Your task to perform on an android device: create a new album in the google photos Image 0: 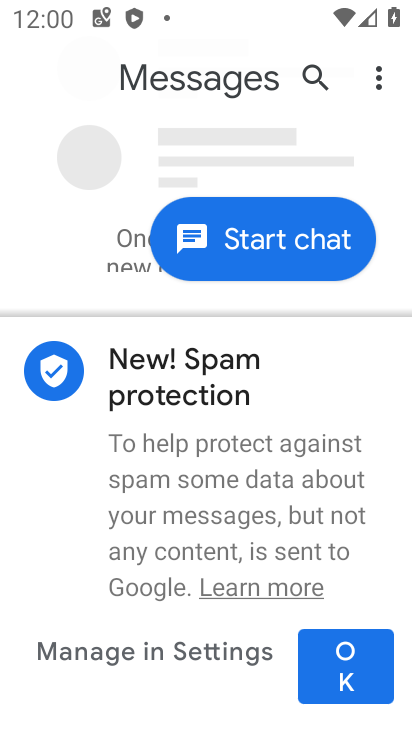
Step 0: press home button
Your task to perform on an android device: create a new album in the google photos Image 1: 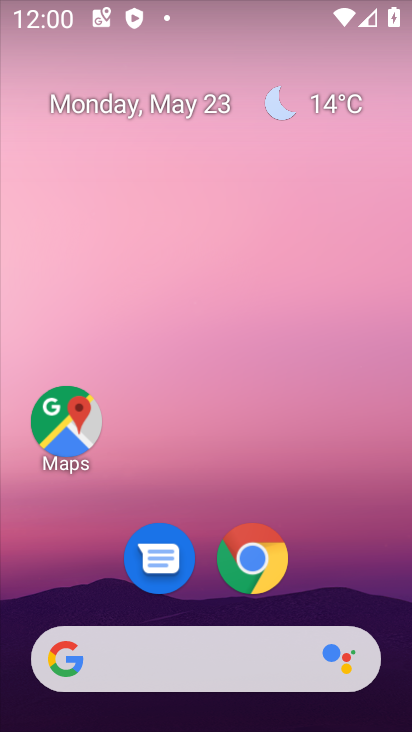
Step 1: drag from (363, 603) to (284, 3)
Your task to perform on an android device: create a new album in the google photos Image 2: 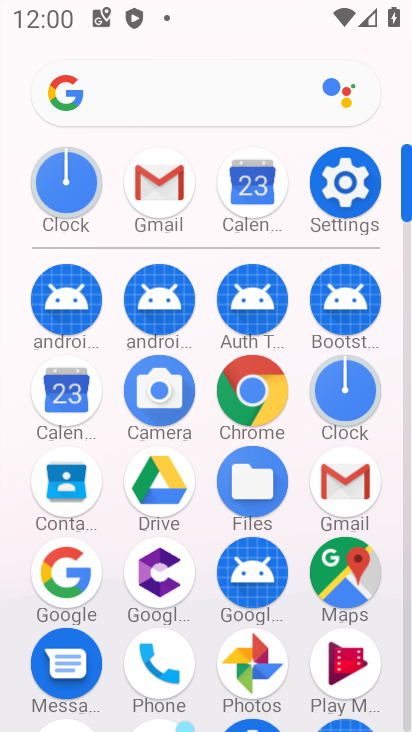
Step 2: click (261, 654)
Your task to perform on an android device: create a new album in the google photos Image 3: 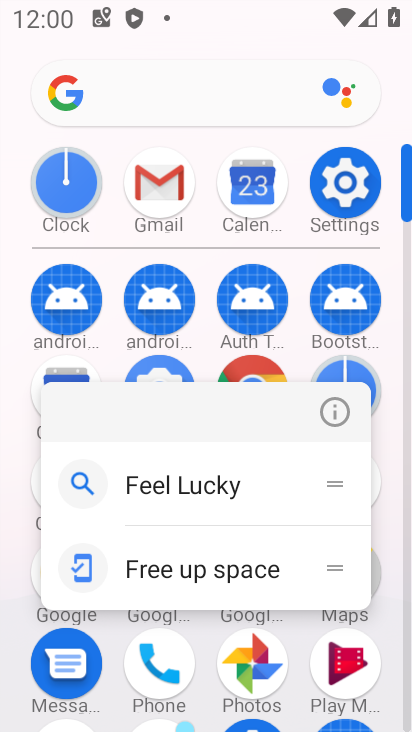
Step 3: click (253, 666)
Your task to perform on an android device: create a new album in the google photos Image 4: 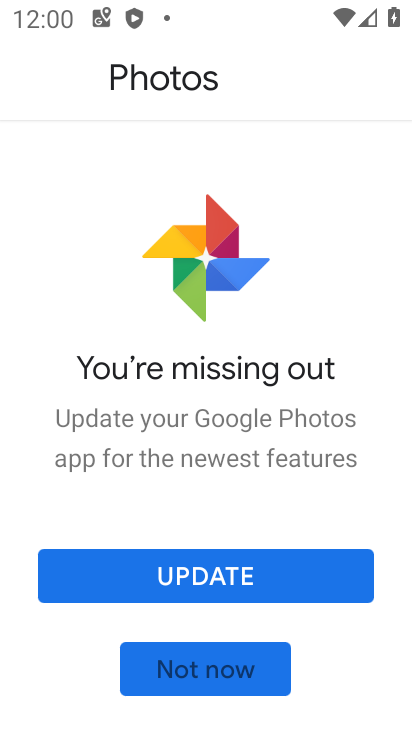
Step 4: click (203, 670)
Your task to perform on an android device: create a new album in the google photos Image 5: 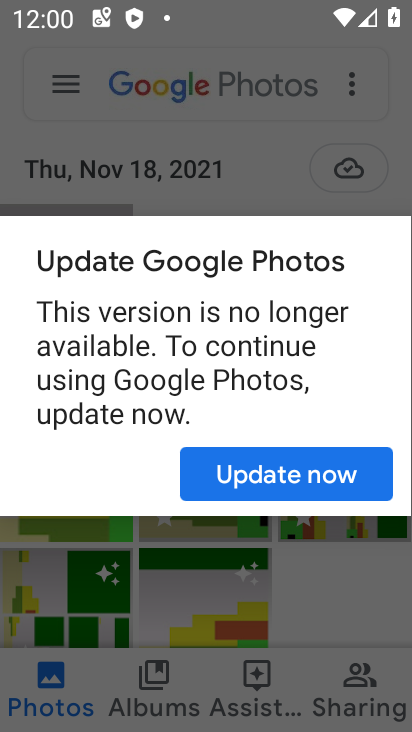
Step 5: click (269, 483)
Your task to perform on an android device: create a new album in the google photos Image 6: 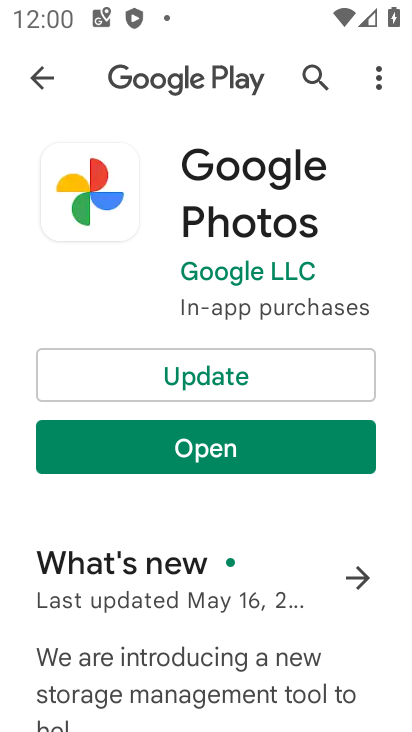
Step 6: click (212, 463)
Your task to perform on an android device: create a new album in the google photos Image 7: 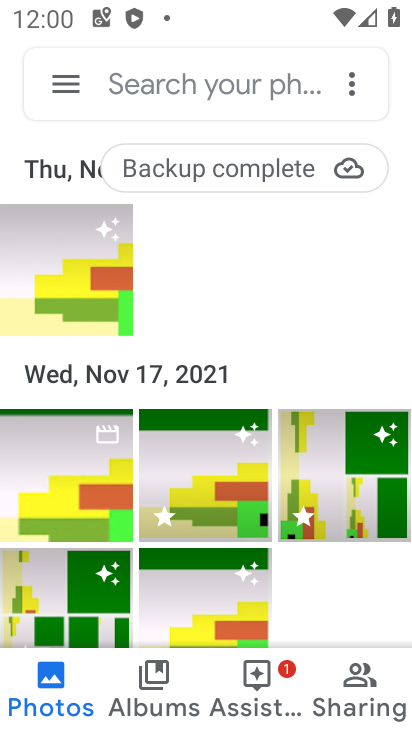
Step 7: click (195, 480)
Your task to perform on an android device: create a new album in the google photos Image 8: 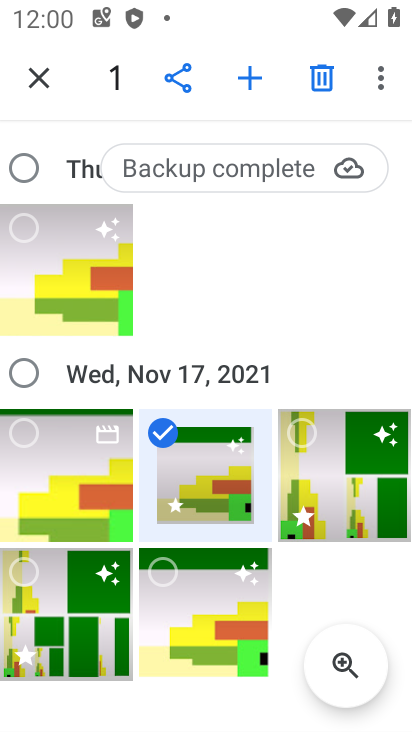
Step 8: click (317, 478)
Your task to perform on an android device: create a new album in the google photos Image 9: 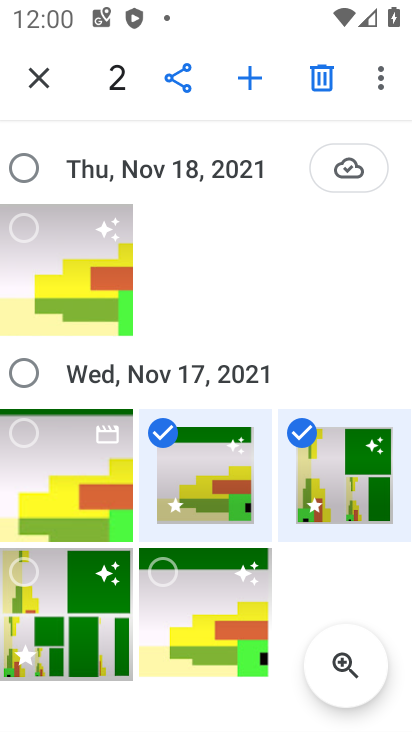
Step 9: click (248, 95)
Your task to perform on an android device: create a new album in the google photos Image 10: 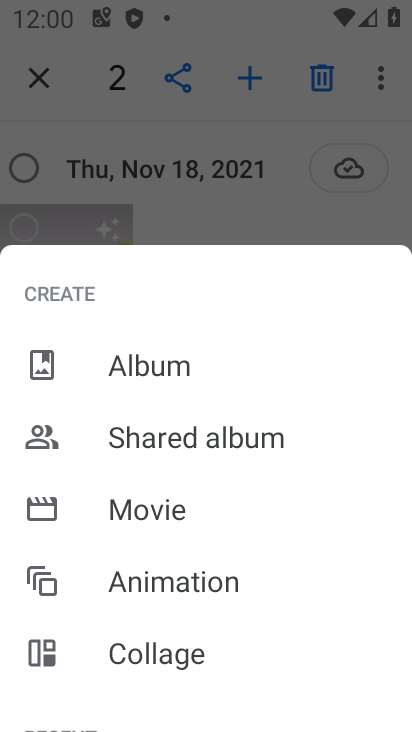
Step 10: click (143, 374)
Your task to perform on an android device: create a new album in the google photos Image 11: 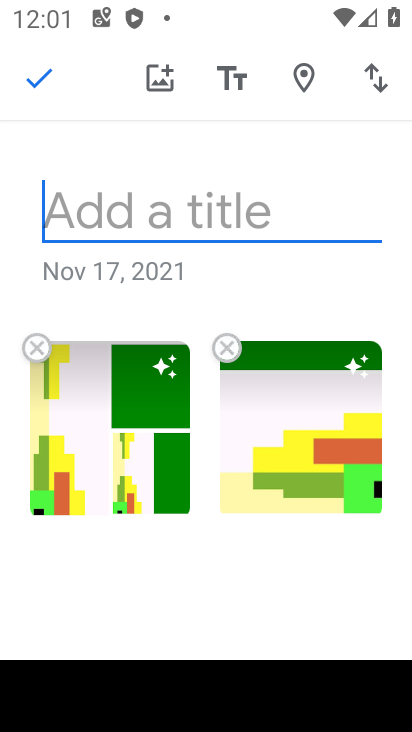
Step 11: click (103, 221)
Your task to perform on an android device: create a new album in the google photos Image 12: 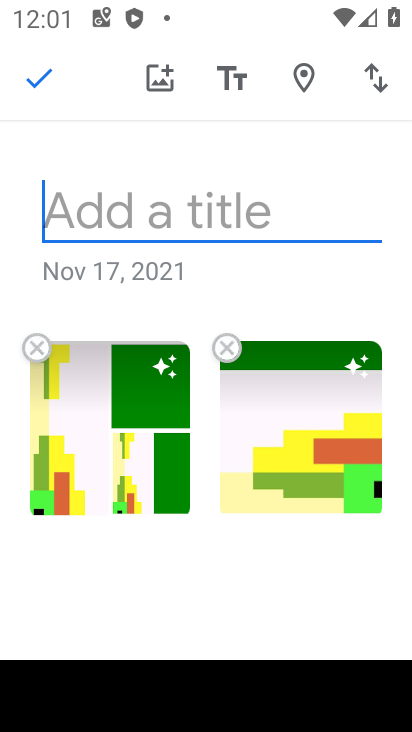
Step 12: type "new 1"
Your task to perform on an android device: create a new album in the google photos Image 13: 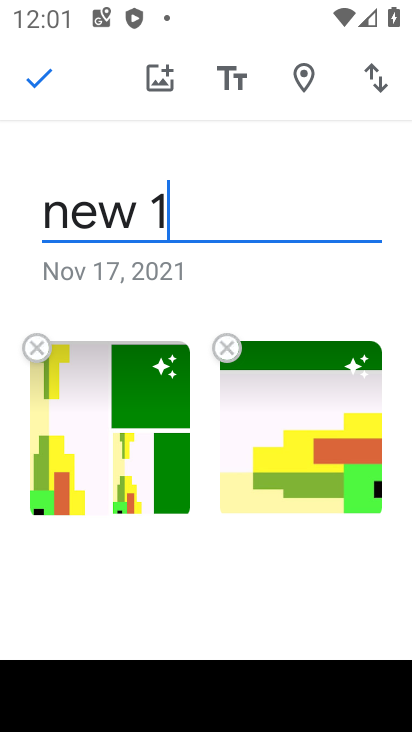
Step 13: click (30, 82)
Your task to perform on an android device: create a new album in the google photos Image 14: 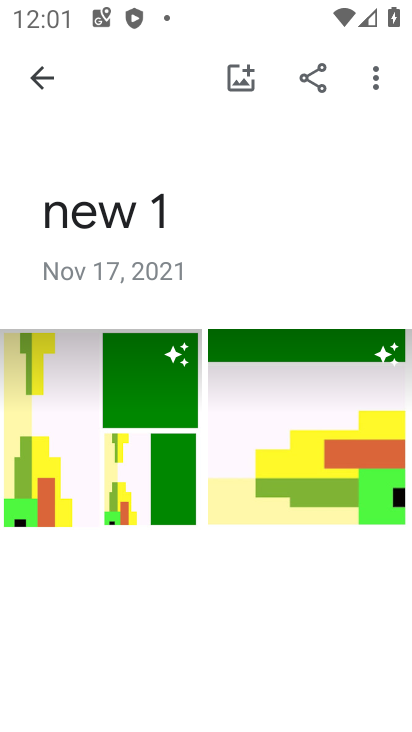
Step 14: task complete